Your task to perform on an android device: toggle javascript in the chrome app Image 0: 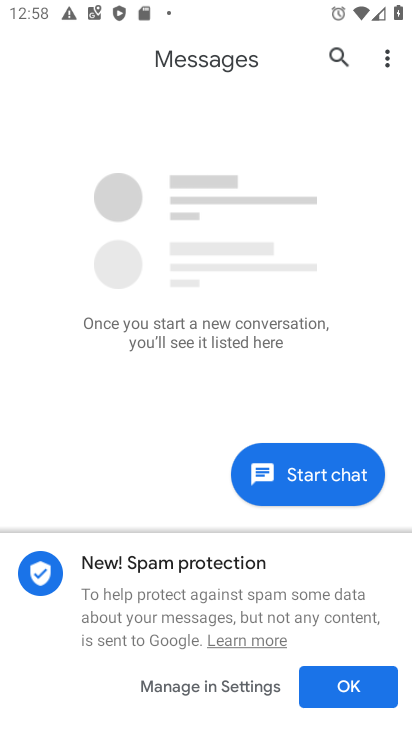
Step 0: press home button
Your task to perform on an android device: toggle javascript in the chrome app Image 1: 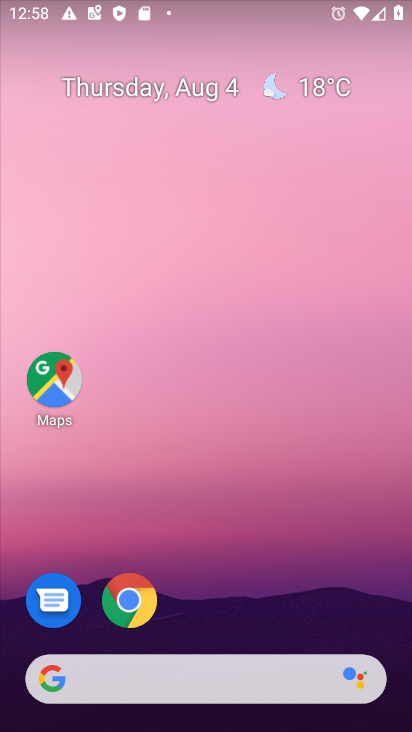
Step 1: click (128, 602)
Your task to perform on an android device: toggle javascript in the chrome app Image 2: 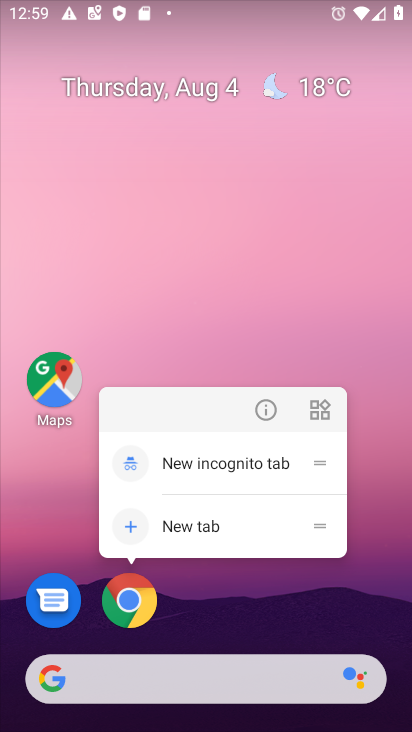
Step 2: click (129, 601)
Your task to perform on an android device: toggle javascript in the chrome app Image 3: 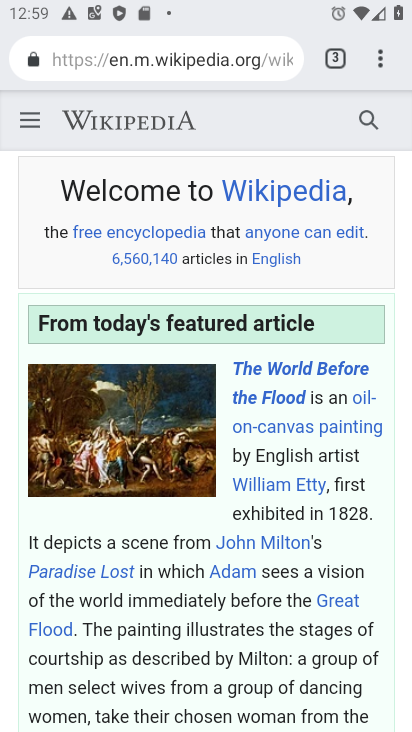
Step 3: drag from (387, 50) to (224, 627)
Your task to perform on an android device: toggle javascript in the chrome app Image 4: 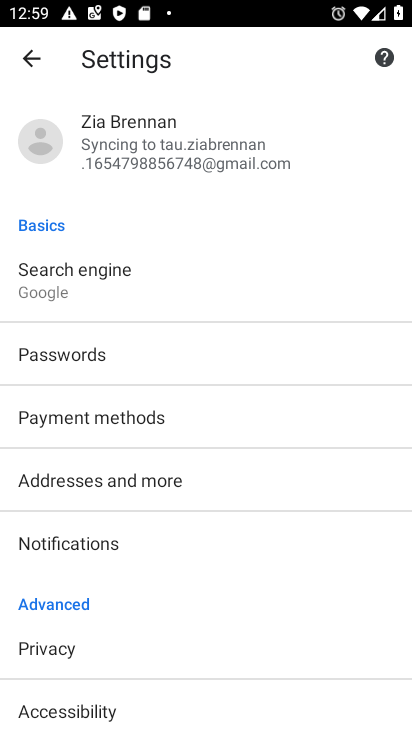
Step 4: drag from (215, 626) to (284, 250)
Your task to perform on an android device: toggle javascript in the chrome app Image 5: 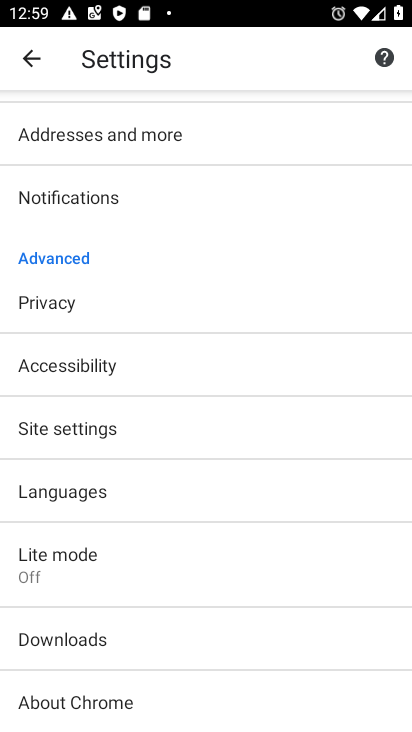
Step 5: click (68, 431)
Your task to perform on an android device: toggle javascript in the chrome app Image 6: 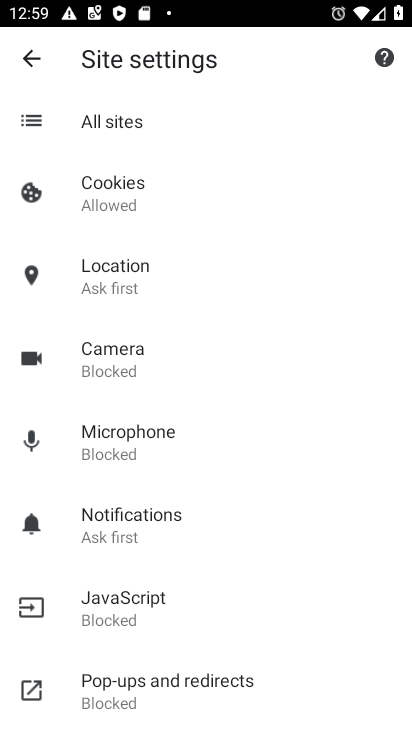
Step 6: click (125, 617)
Your task to perform on an android device: toggle javascript in the chrome app Image 7: 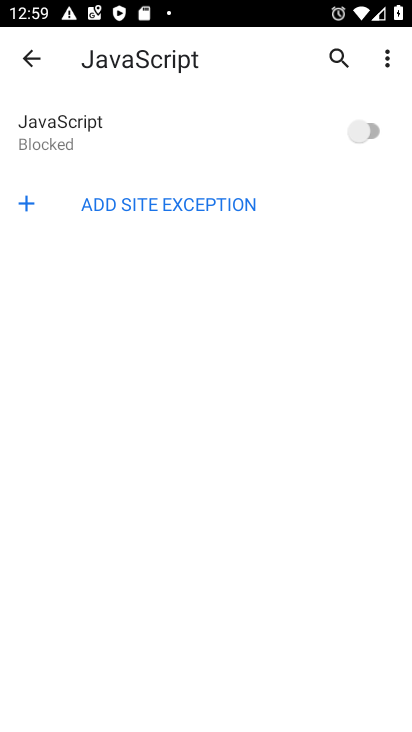
Step 7: click (371, 127)
Your task to perform on an android device: toggle javascript in the chrome app Image 8: 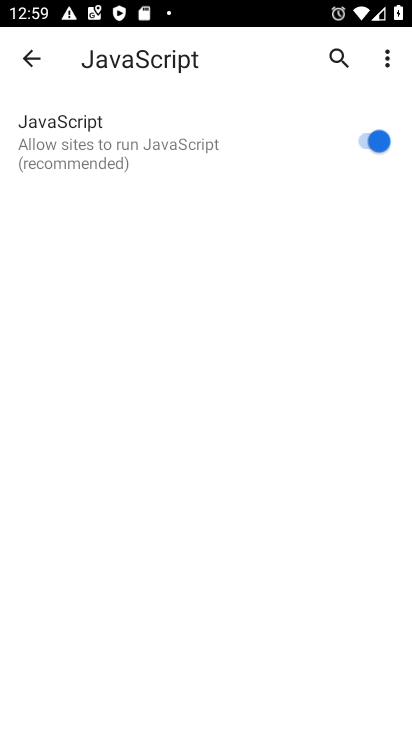
Step 8: task complete